Your task to perform on an android device: Check the news Image 0: 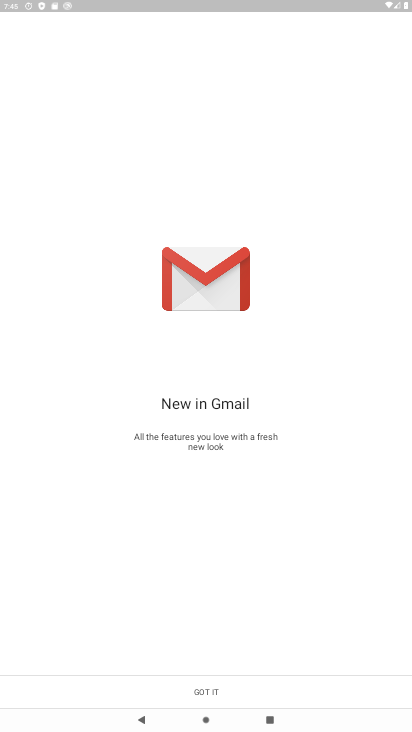
Step 0: press home button
Your task to perform on an android device: Check the news Image 1: 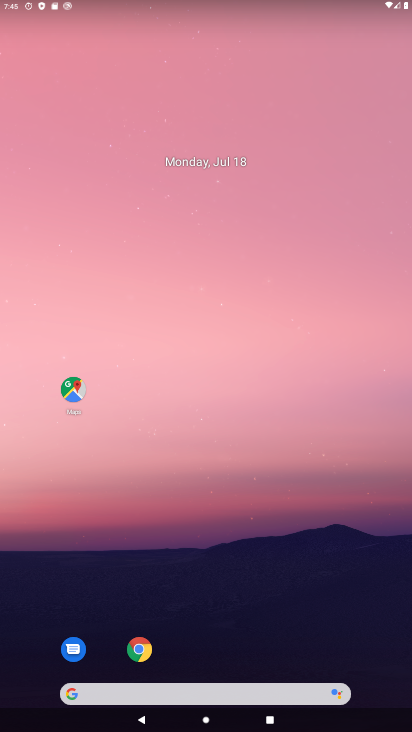
Step 1: drag from (298, 607) to (262, 80)
Your task to perform on an android device: Check the news Image 2: 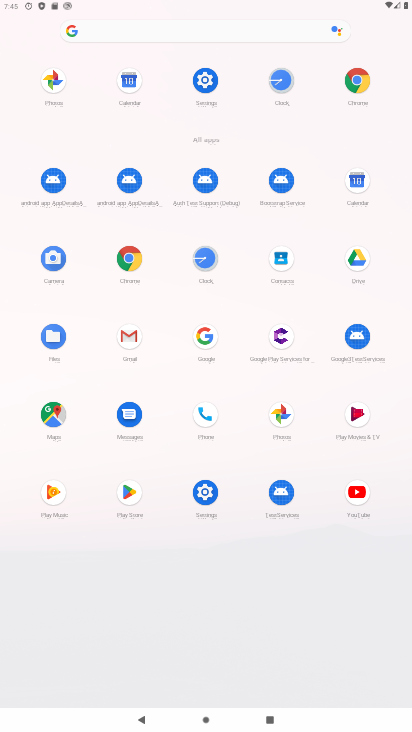
Step 2: click (125, 265)
Your task to perform on an android device: Check the news Image 3: 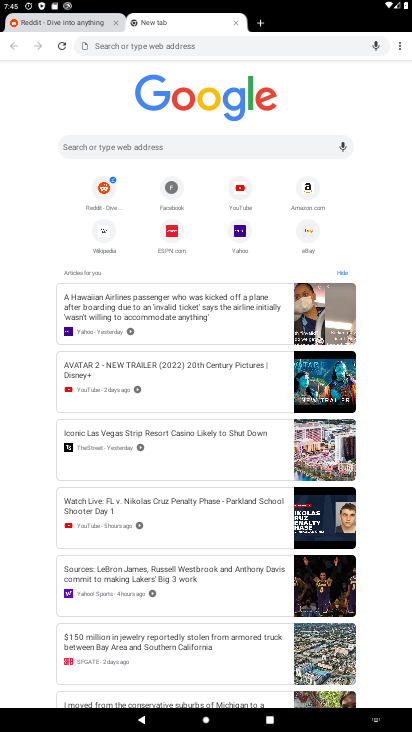
Step 3: click (185, 148)
Your task to perform on an android device: Check the news Image 4: 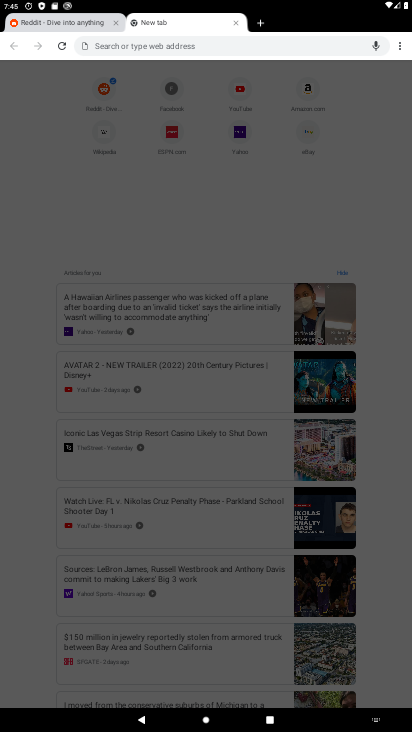
Step 4: type "news"
Your task to perform on an android device: Check the news Image 5: 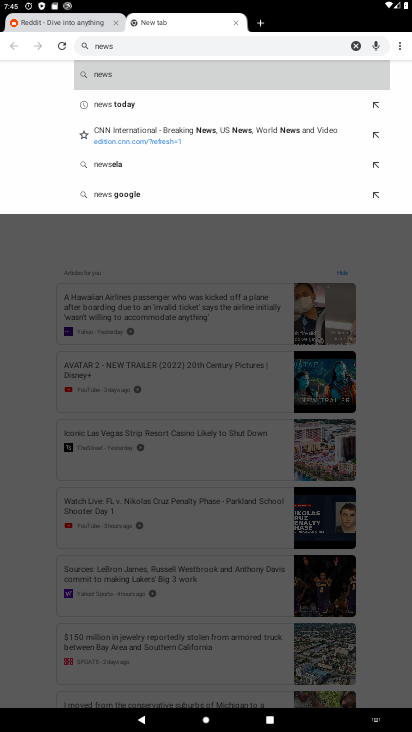
Step 5: click (115, 75)
Your task to perform on an android device: Check the news Image 6: 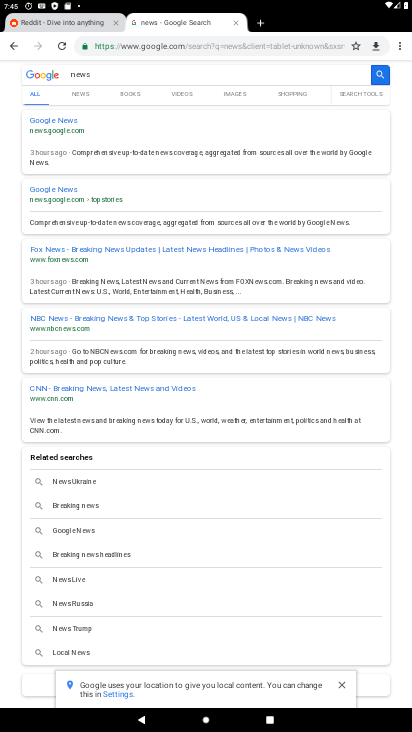
Step 6: click (67, 122)
Your task to perform on an android device: Check the news Image 7: 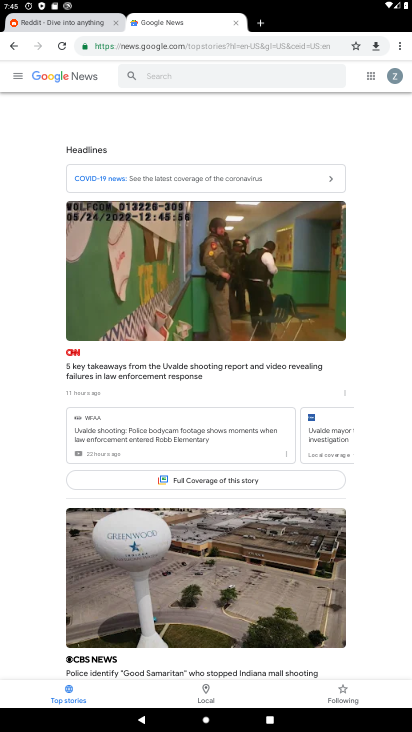
Step 7: task complete